Your task to perform on an android device: Show me productivity apps on the Play Store Image 0: 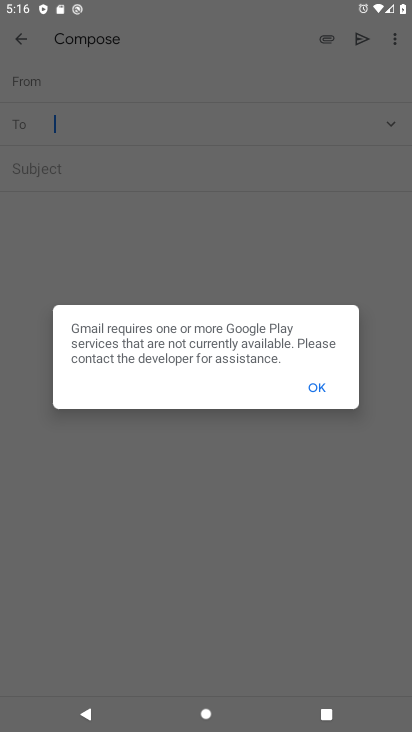
Step 0: drag from (330, 608) to (312, 381)
Your task to perform on an android device: Show me productivity apps on the Play Store Image 1: 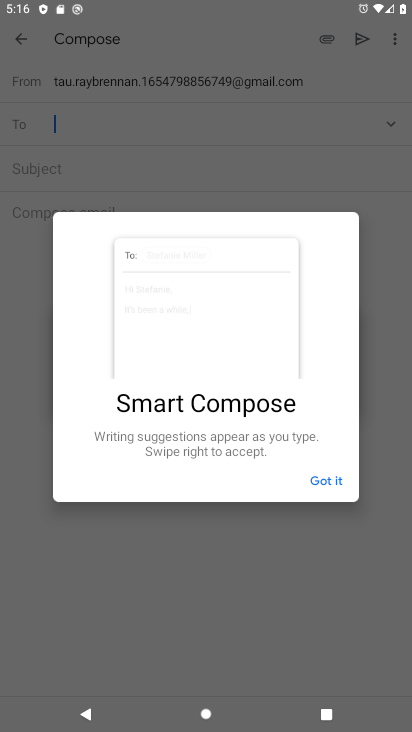
Step 1: press home button
Your task to perform on an android device: Show me productivity apps on the Play Store Image 2: 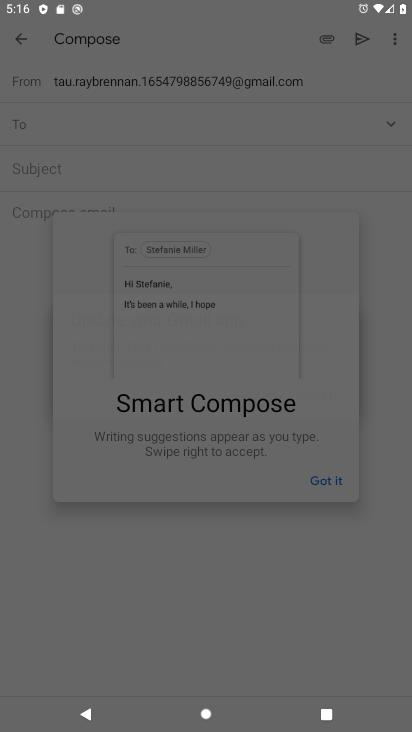
Step 2: drag from (332, 562) to (154, 53)
Your task to perform on an android device: Show me productivity apps on the Play Store Image 3: 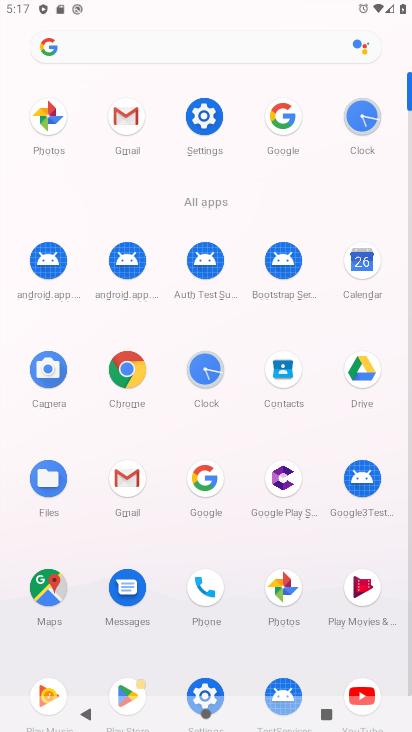
Step 3: click (128, 684)
Your task to perform on an android device: Show me productivity apps on the Play Store Image 4: 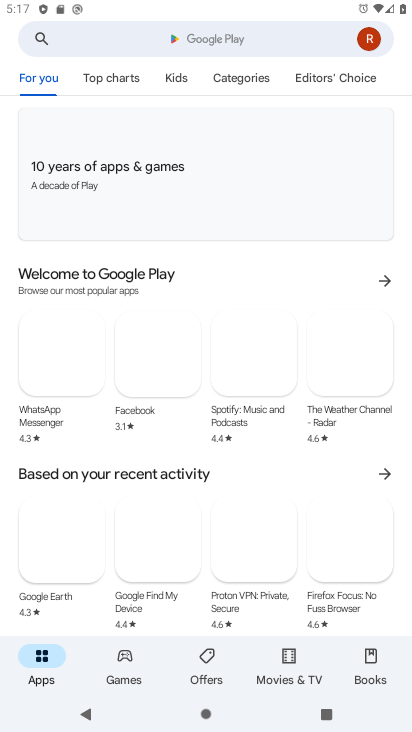
Step 4: task complete